Your task to perform on an android device: turn off improve location accuracy Image 0: 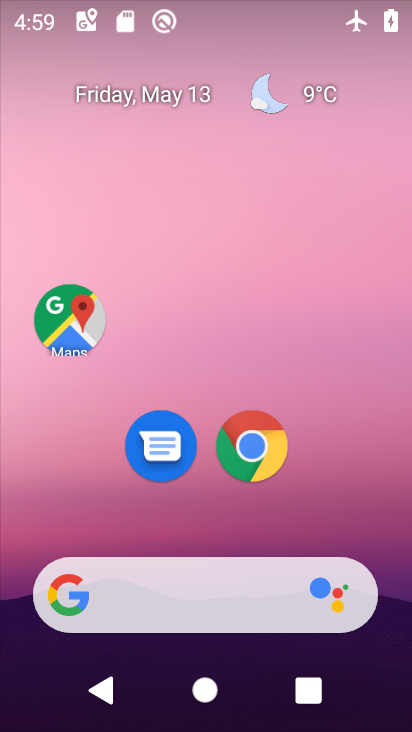
Step 0: drag from (218, 524) to (232, 24)
Your task to perform on an android device: turn off improve location accuracy Image 1: 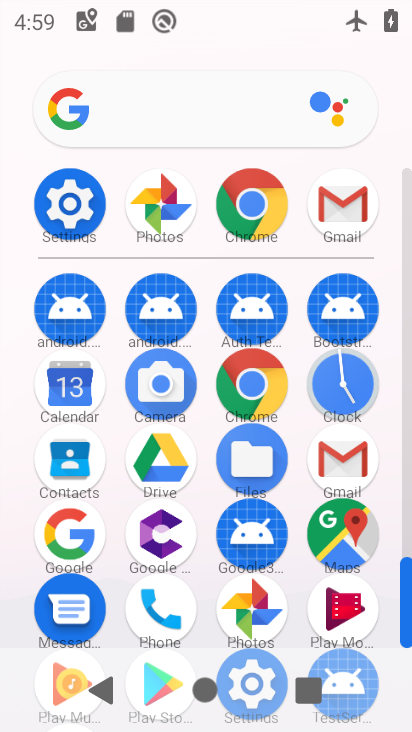
Step 1: click (53, 196)
Your task to perform on an android device: turn off improve location accuracy Image 2: 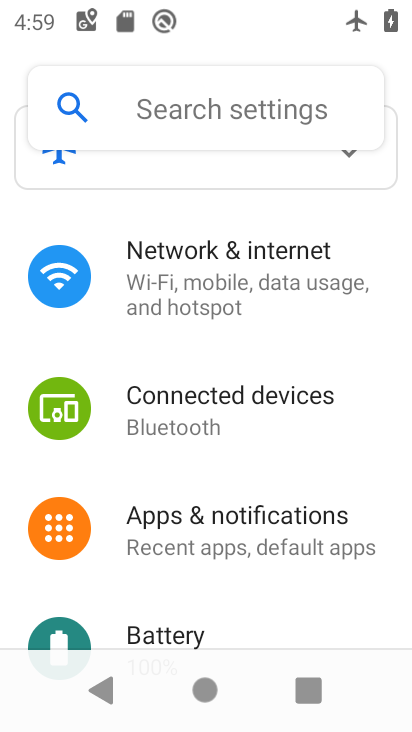
Step 2: drag from (193, 579) to (192, 168)
Your task to perform on an android device: turn off improve location accuracy Image 3: 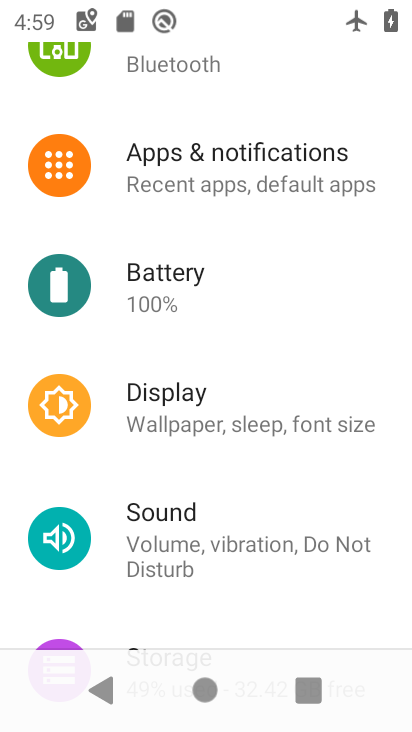
Step 3: drag from (197, 568) to (223, 198)
Your task to perform on an android device: turn off improve location accuracy Image 4: 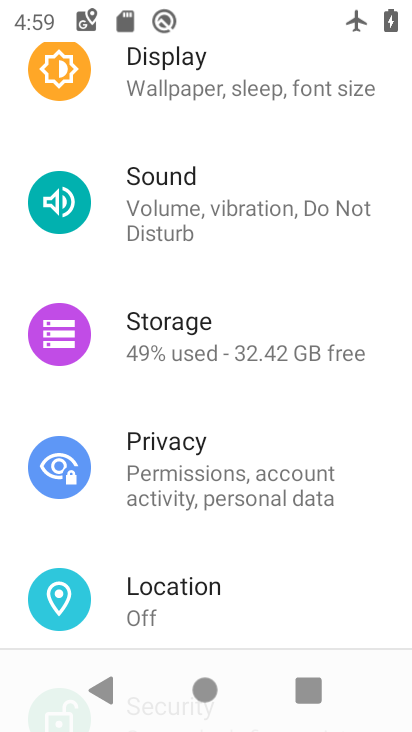
Step 4: click (195, 573)
Your task to perform on an android device: turn off improve location accuracy Image 5: 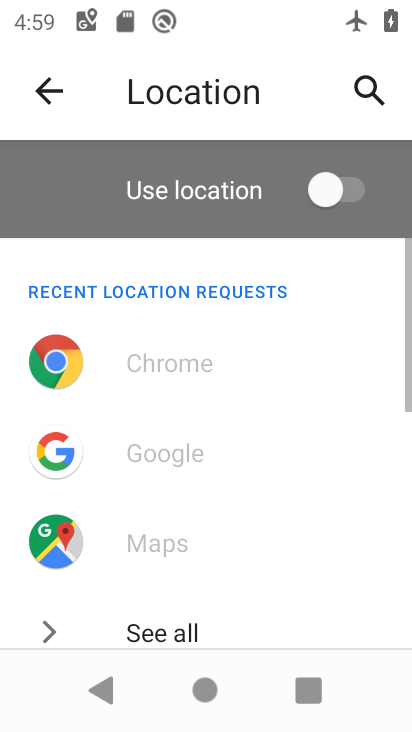
Step 5: drag from (197, 587) to (208, 187)
Your task to perform on an android device: turn off improve location accuracy Image 6: 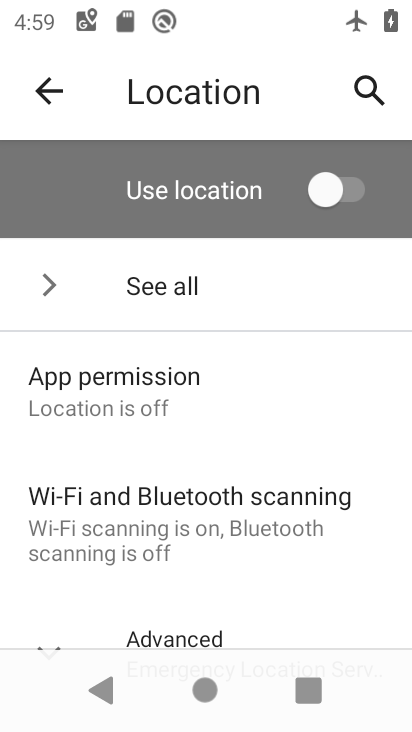
Step 6: drag from (211, 545) to (202, 196)
Your task to perform on an android device: turn off improve location accuracy Image 7: 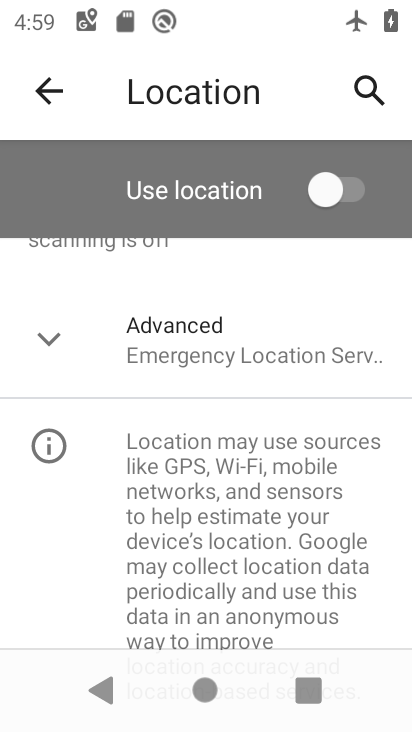
Step 7: click (214, 329)
Your task to perform on an android device: turn off improve location accuracy Image 8: 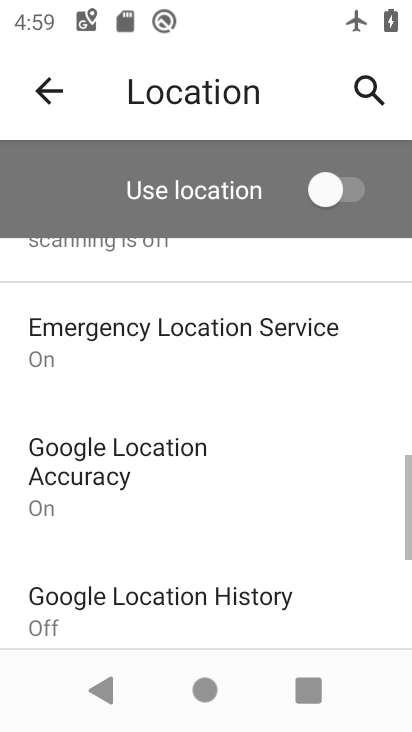
Step 8: drag from (222, 555) to (218, 376)
Your task to perform on an android device: turn off improve location accuracy Image 9: 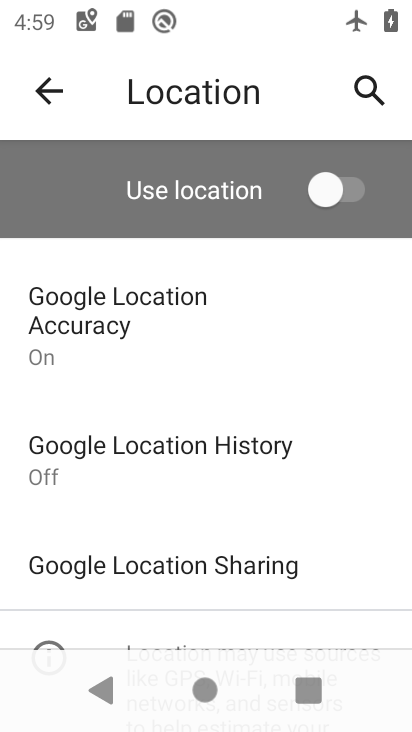
Step 9: click (132, 354)
Your task to perform on an android device: turn off improve location accuracy Image 10: 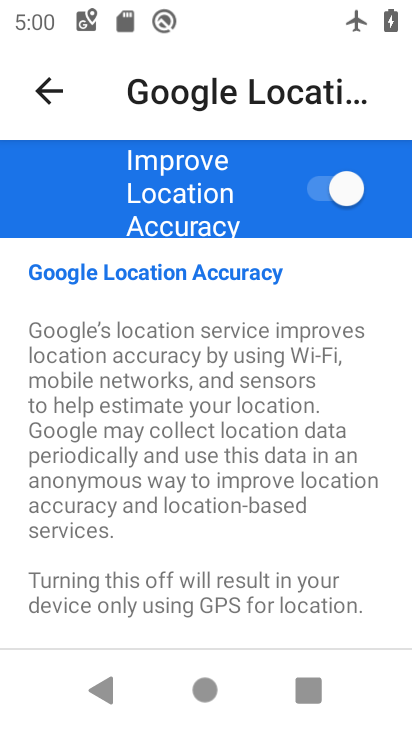
Step 10: click (320, 181)
Your task to perform on an android device: turn off improve location accuracy Image 11: 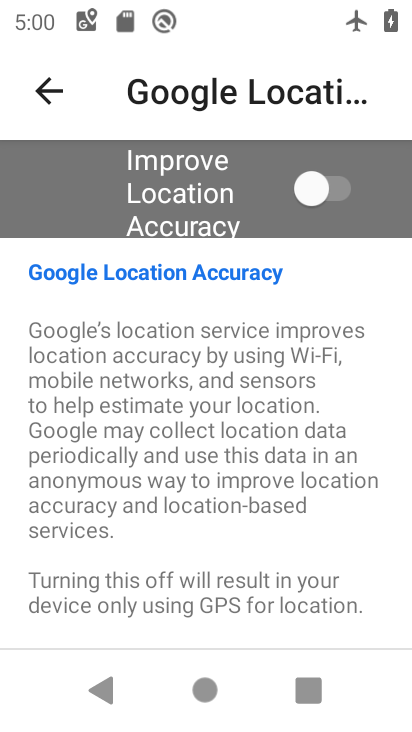
Step 11: task complete